Your task to perform on an android device: Open Yahoo.com Image 0: 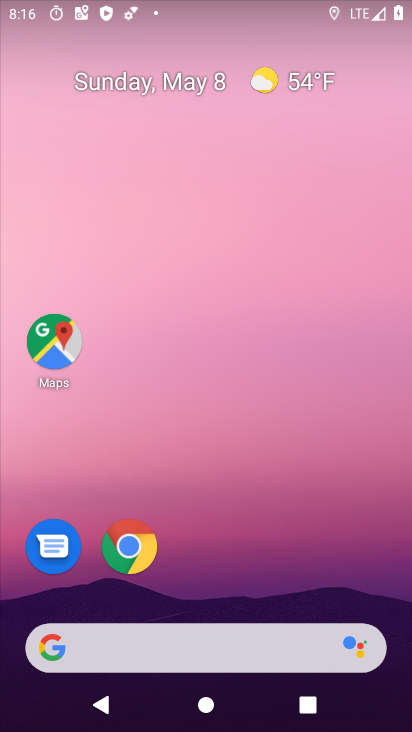
Step 0: click (138, 536)
Your task to perform on an android device: Open Yahoo.com Image 1: 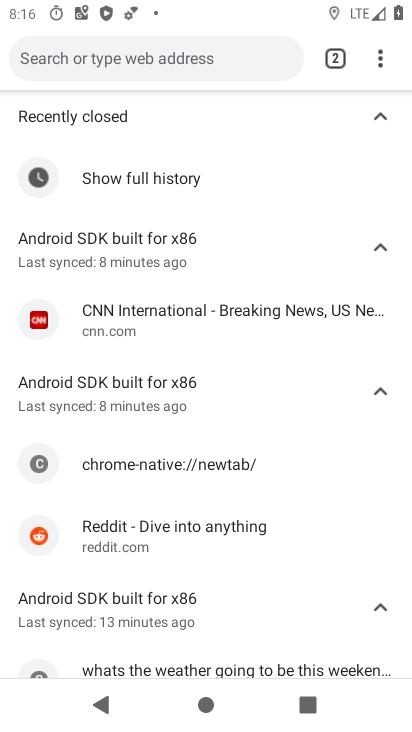
Step 1: click (122, 58)
Your task to perform on an android device: Open Yahoo.com Image 2: 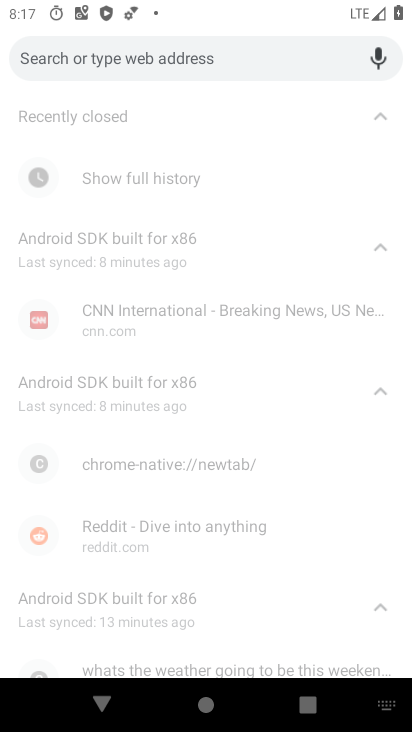
Step 2: type "Yahoo.com"
Your task to perform on an android device: Open Yahoo.com Image 3: 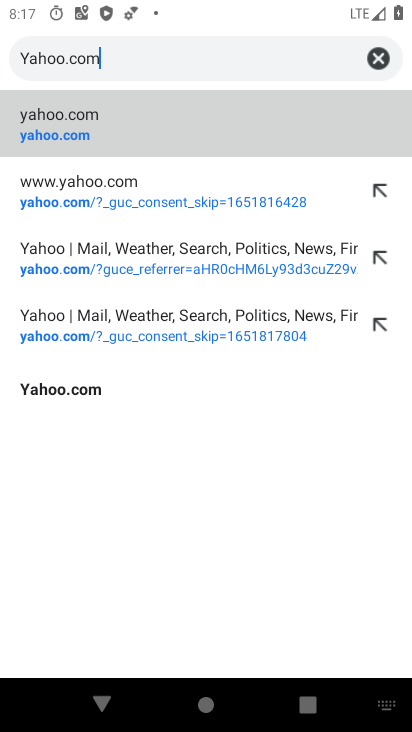
Step 3: click (55, 253)
Your task to perform on an android device: Open Yahoo.com Image 4: 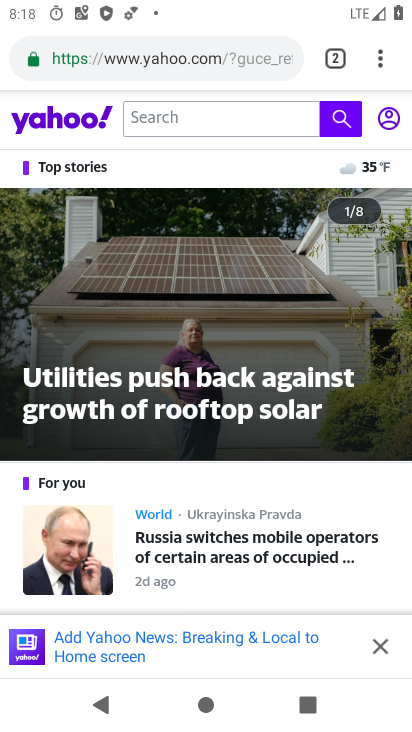
Step 4: task complete